Your task to perform on an android device: Clear all items from cart on newegg. Add razer blade to the cart on newegg, then select checkout. Image 0: 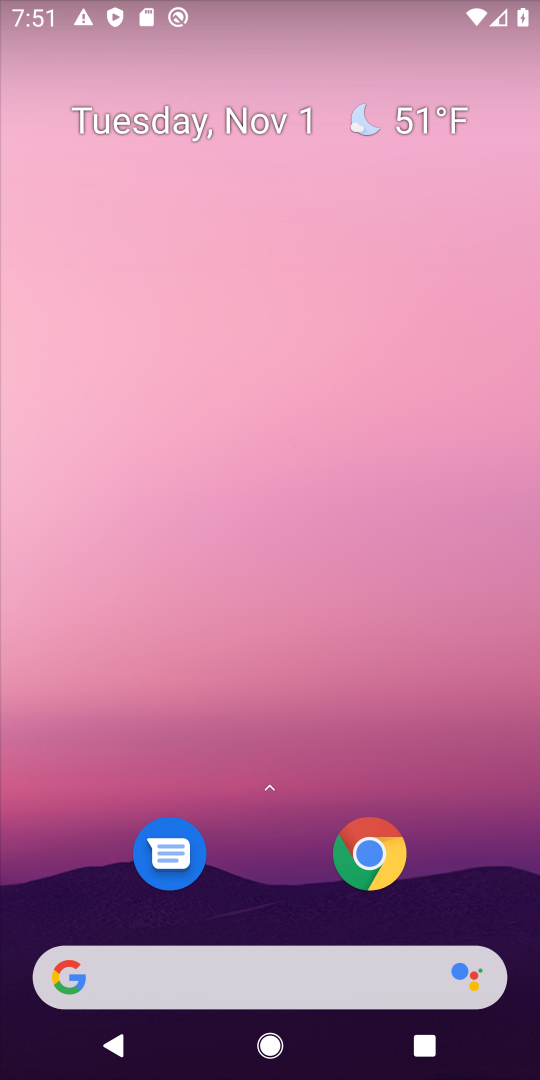
Step 0: click (313, 991)
Your task to perform on an android device: Clear all items from cart on newegg. Add razer blade to the cart on newegg, then select checkout. Image 1: 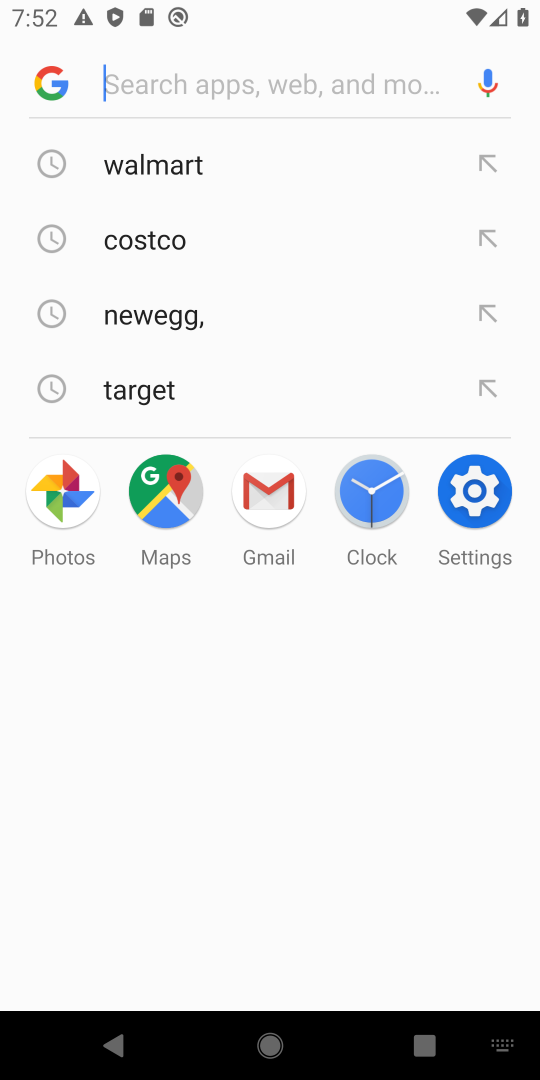
Step 1: click (201, 303)
Your task to perform on an android device: Clear all items from cart on newegg. Add razer blade to the cart on newegg, then select checkout. Image 2: 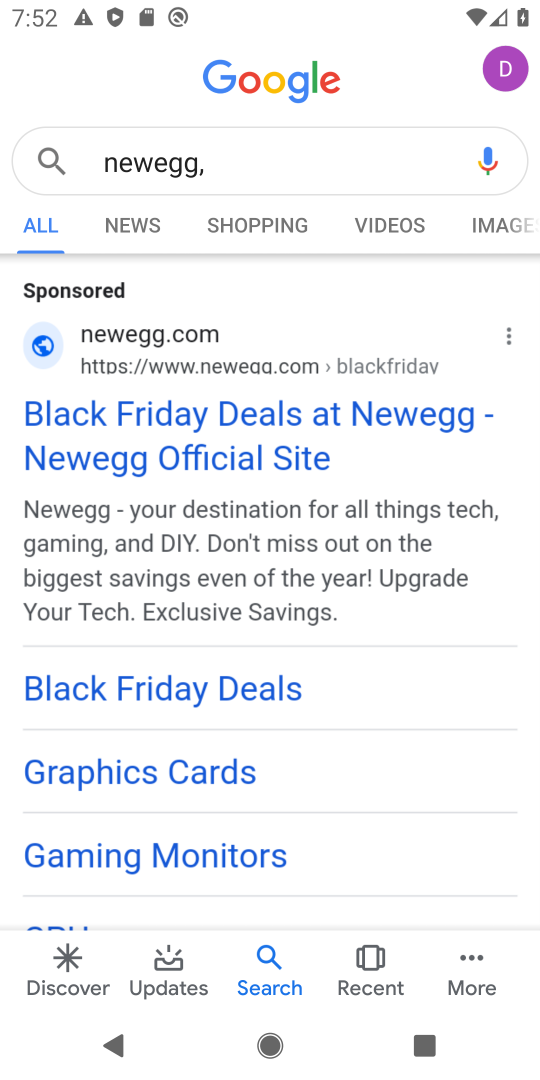
Step 2: click (199, 405)
Your task to perform on an android device: Clear all items from cart on newegg. Add razer blade to the cart on newegg, then select checkout. Image 3: 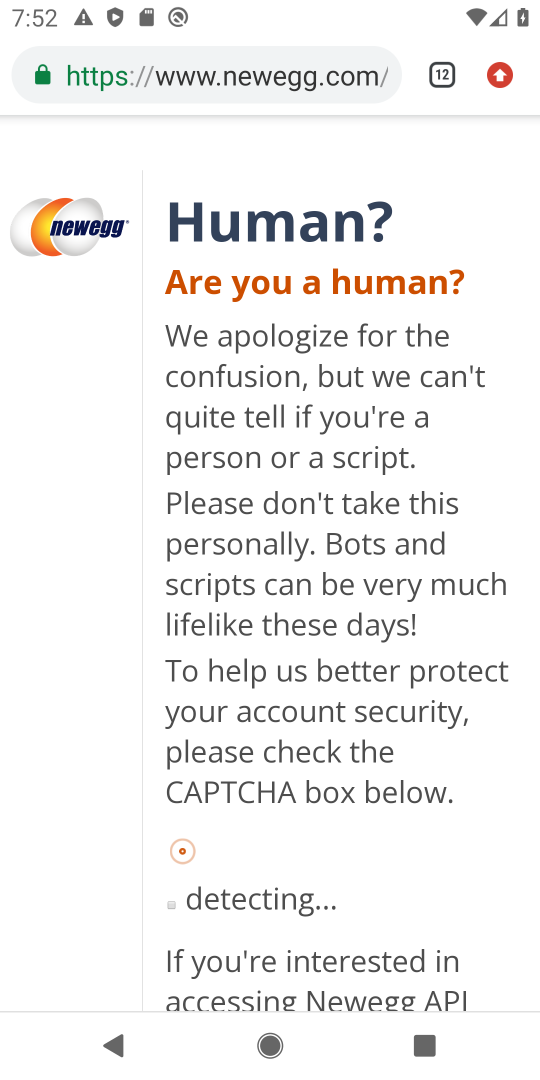
Step 3: task complete